Your task to perform on an android device: turn on showing notifications on the lock screen Image 0: 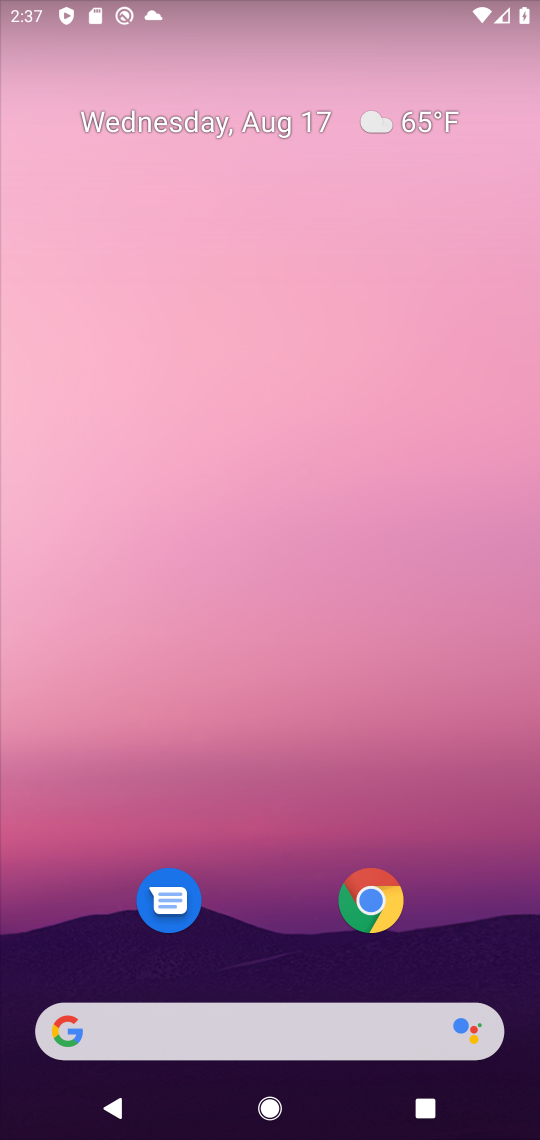
Step 0: drag from (282, 1034) to (440, 144)
Your task to perform on an android device: turn on showing notifications on the lock screen Image 1: 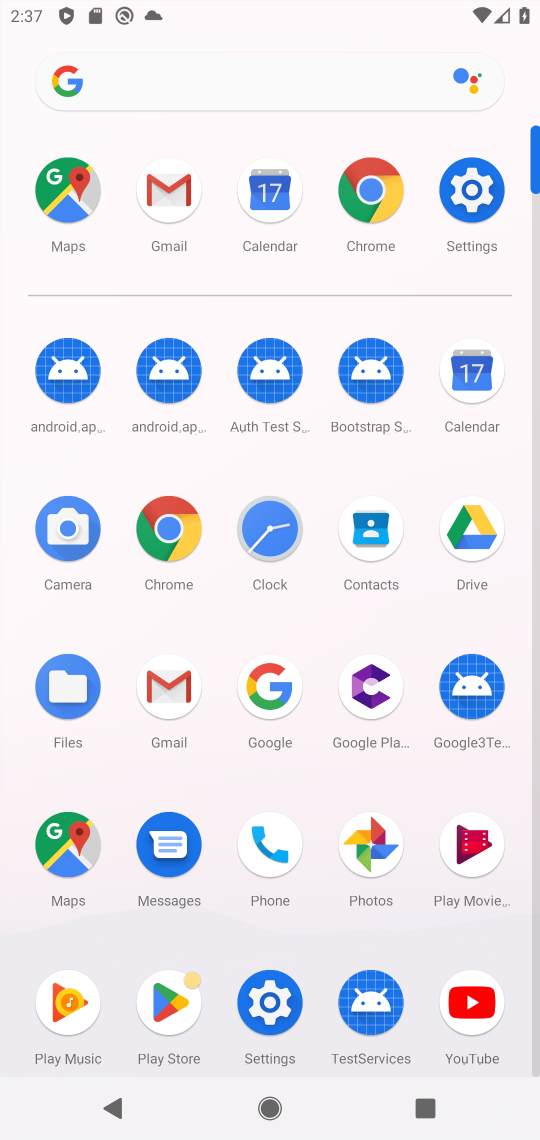
Step 1: click (481, 193)
Your task to perform on an android device: turn on showing notifications on the lock screen Image 2: 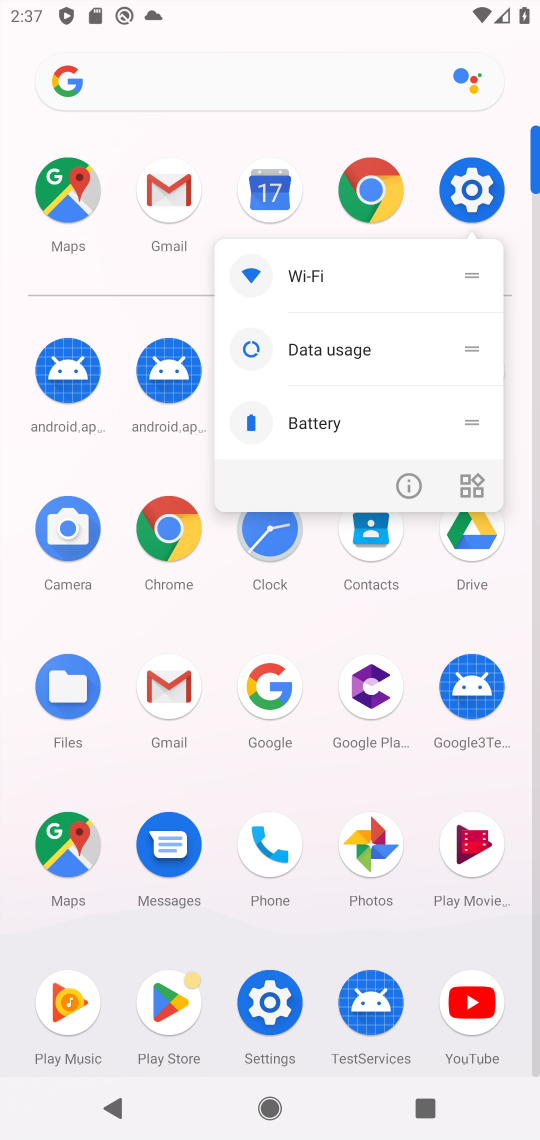
Step 2: click (470, 186)
Your task to perform on an android device: turn on showing notifications on the lock screen Image 3: 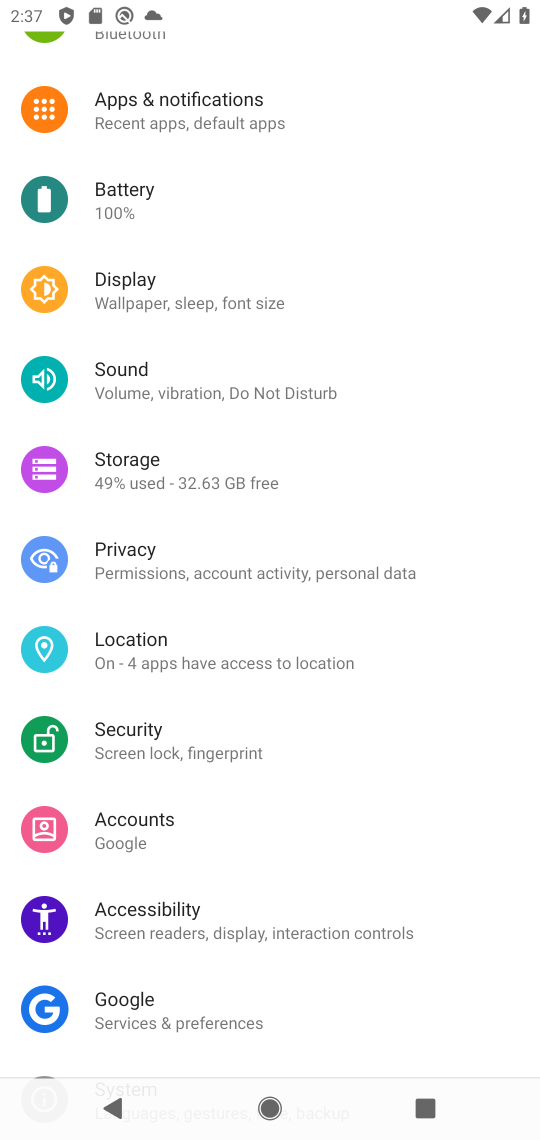
Step 3: click (197, 105)
Your task to perform on an android device: turn on showing notifications on the lock screen Image 4: 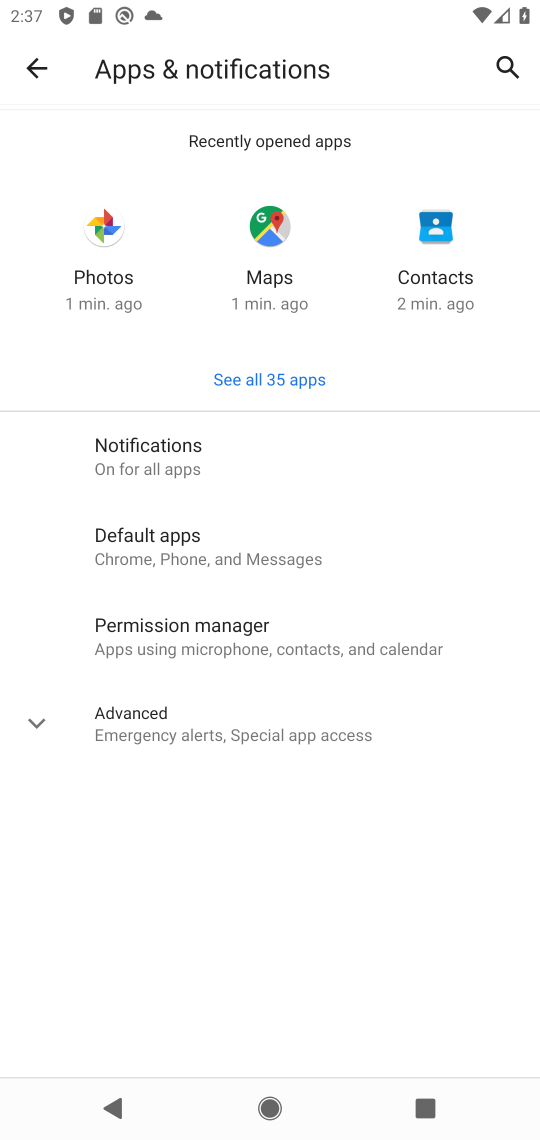
Step 4: click (159, 462)
Your task to perform on an android device: turn on showing notifications on the lock screen Image 5: 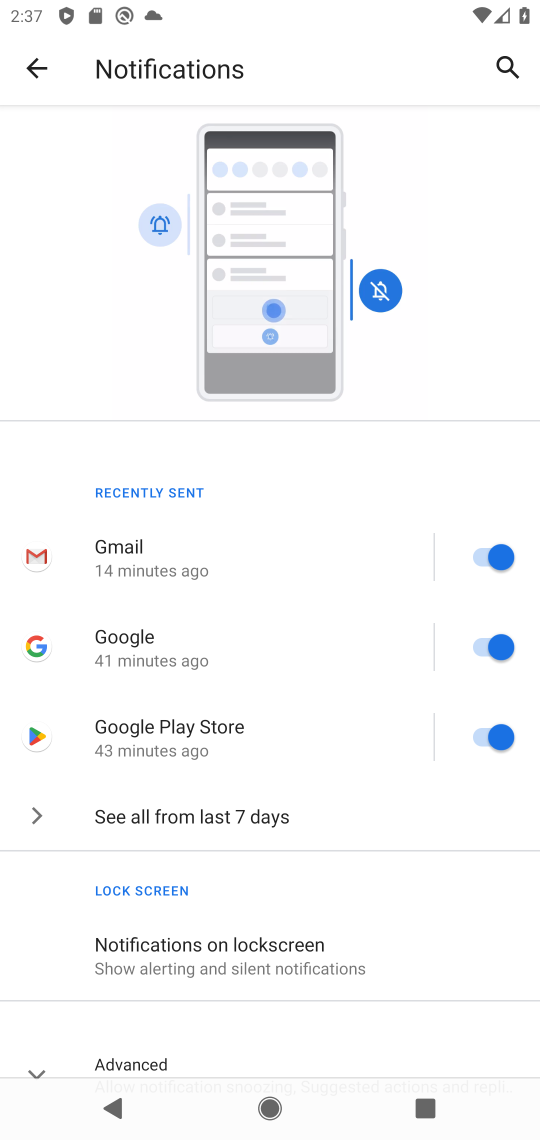
Step 5: click (198, 944)
Your task to perform on an android device: turn on showing notifications on the lock screen Image 6: 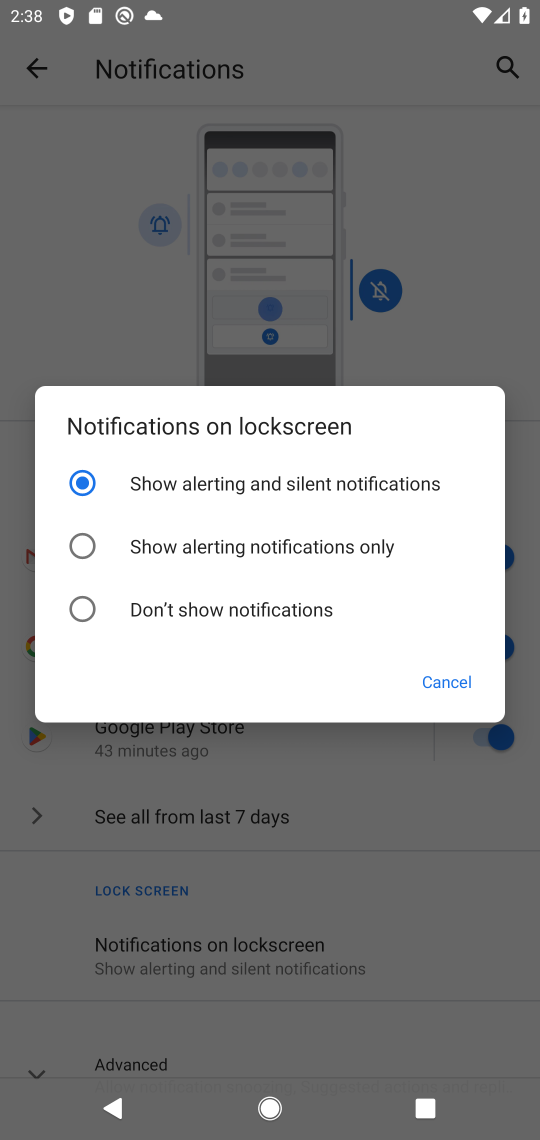
Step 6: task complete